Your task to perform on an android device: Empty the shopping cart on amazon.com. Image 0: 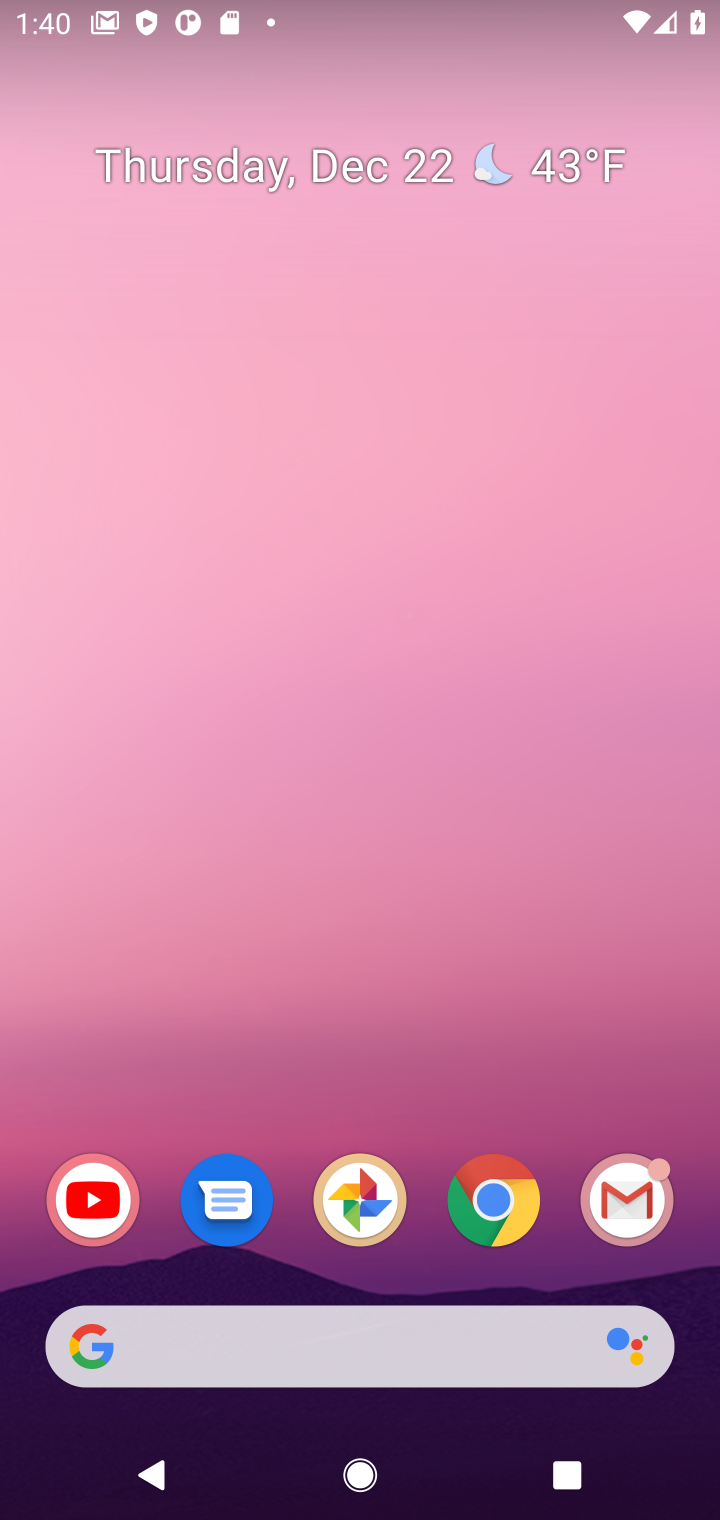
Step 0: click (482, 1208)
Your task to perform on an android device: Empty the shopping cart on amazon.com. Image 1: 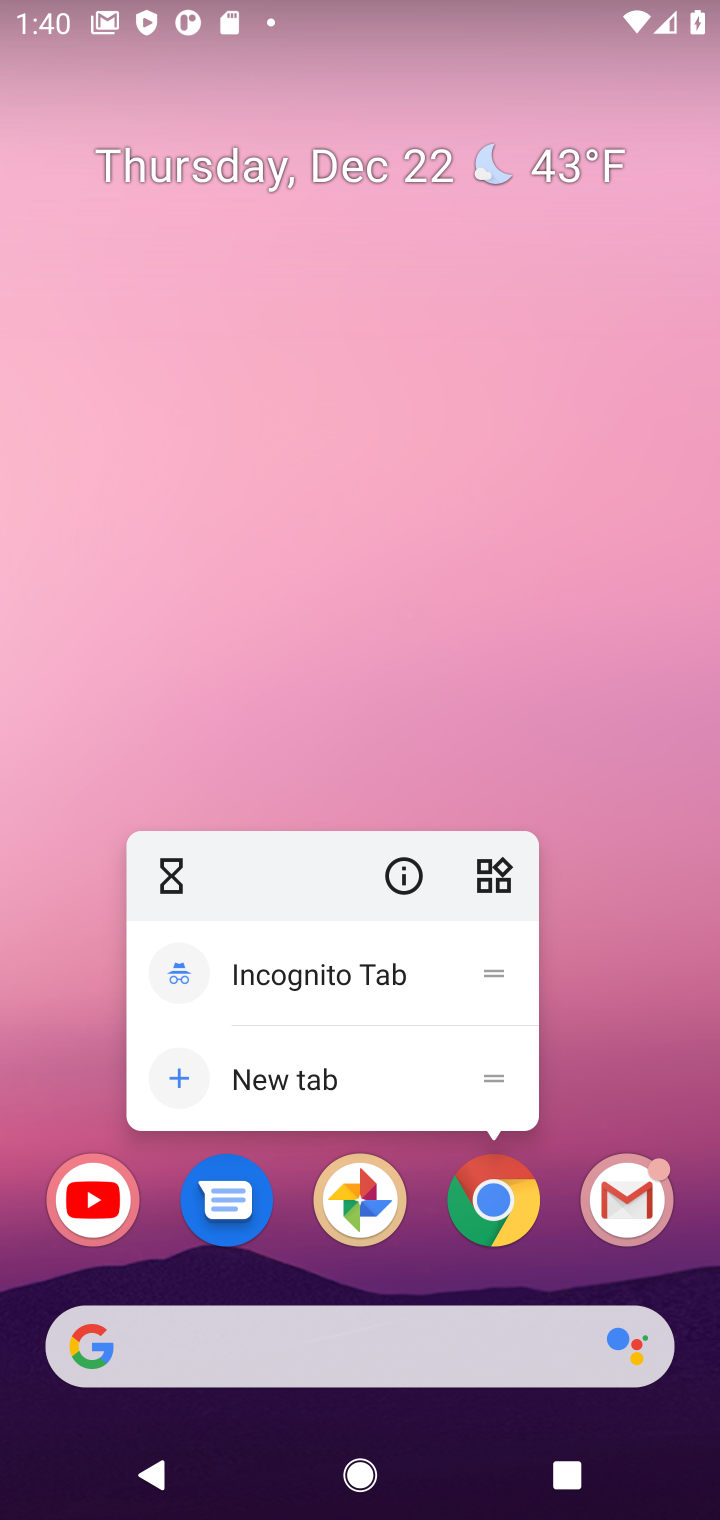
Step 1: click (495, 1208)
Your task to perform on an android device: Empty the shopping cart on amazon.com. Image 2: 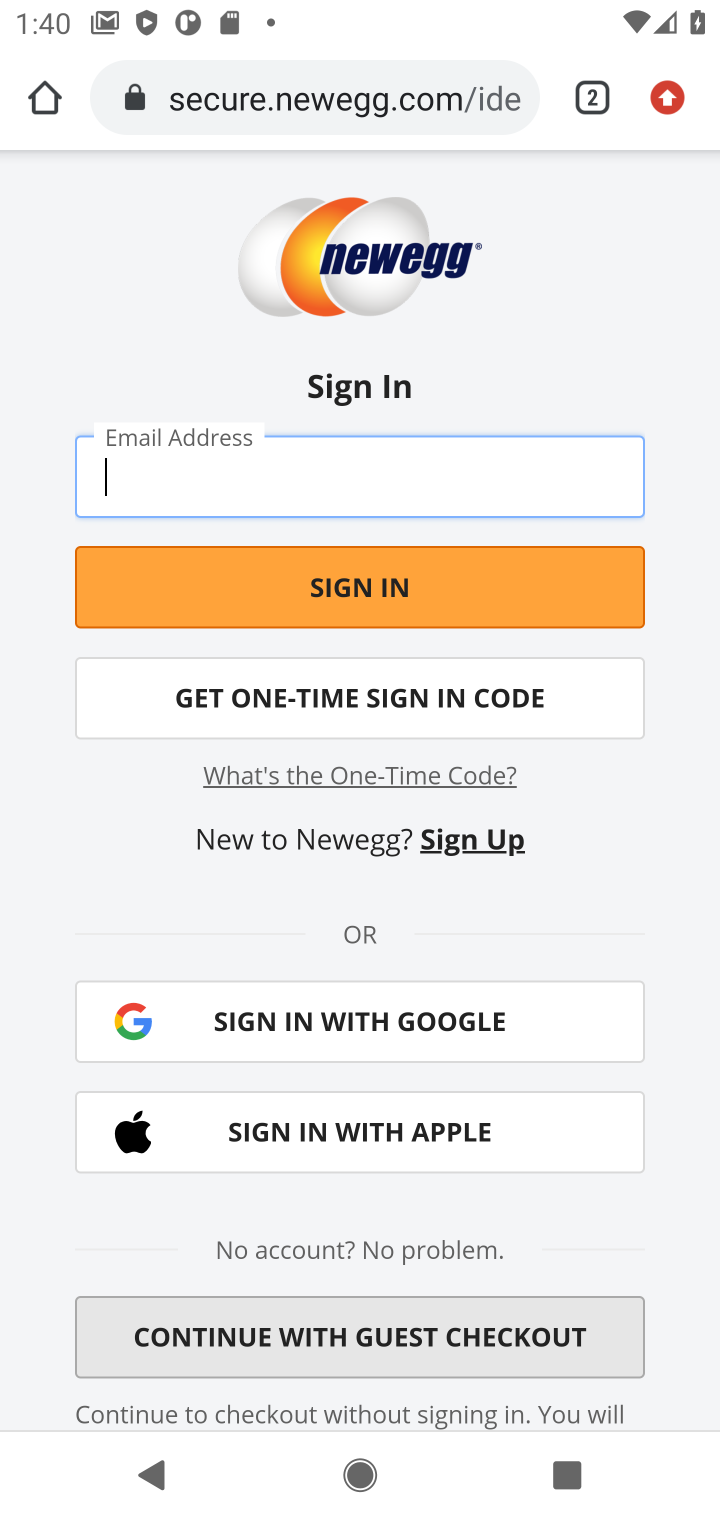
Step 2: click (244, 102)
Your task to perform on an android device: Empty the shopping cart on amazon.com. Image 3: 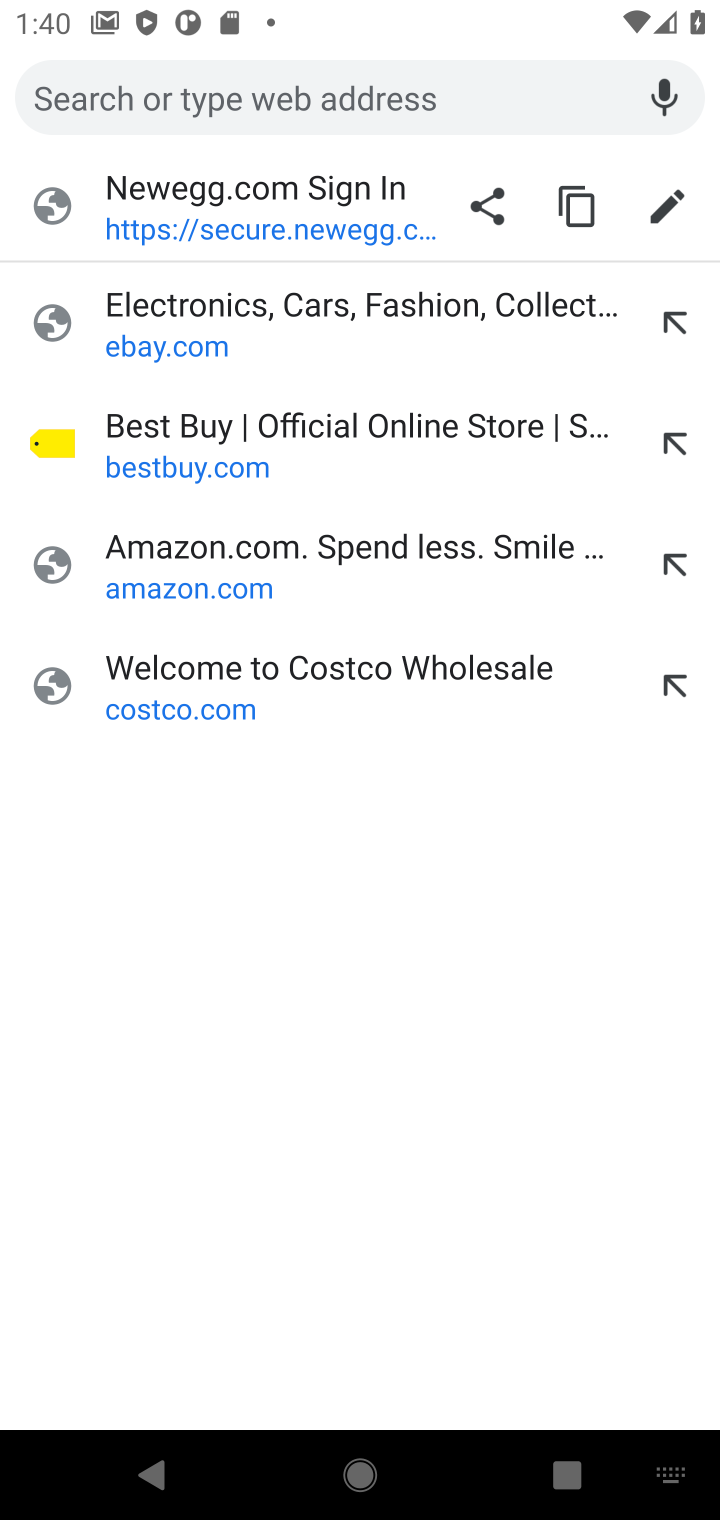
Step 3: click (167, 582)
Your task to perform on an android device: Empty the shopping cart on amazon.com. Image 4: 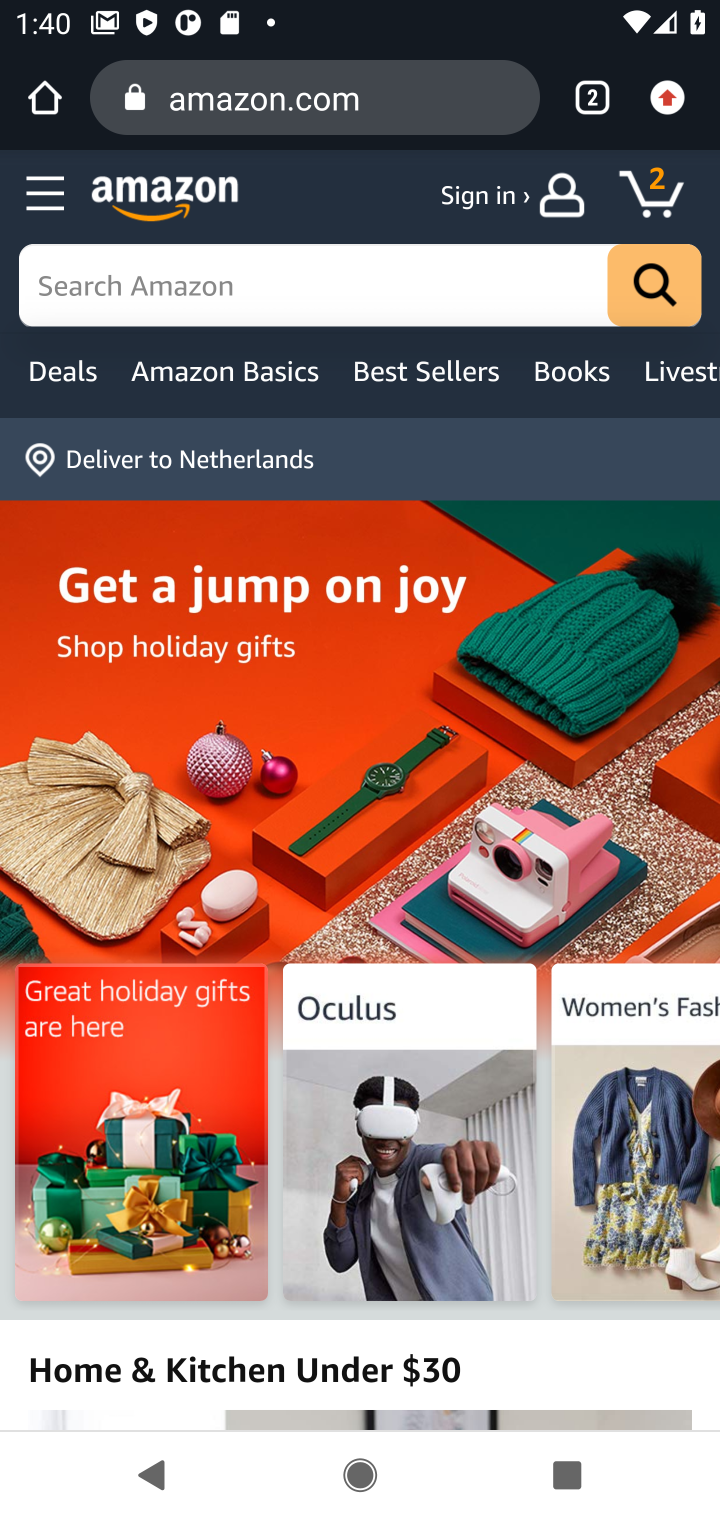
Step 4: click (647, 203)
Your task to perform on an android device: Empty the shopping cart on amazon.com. Image 5: 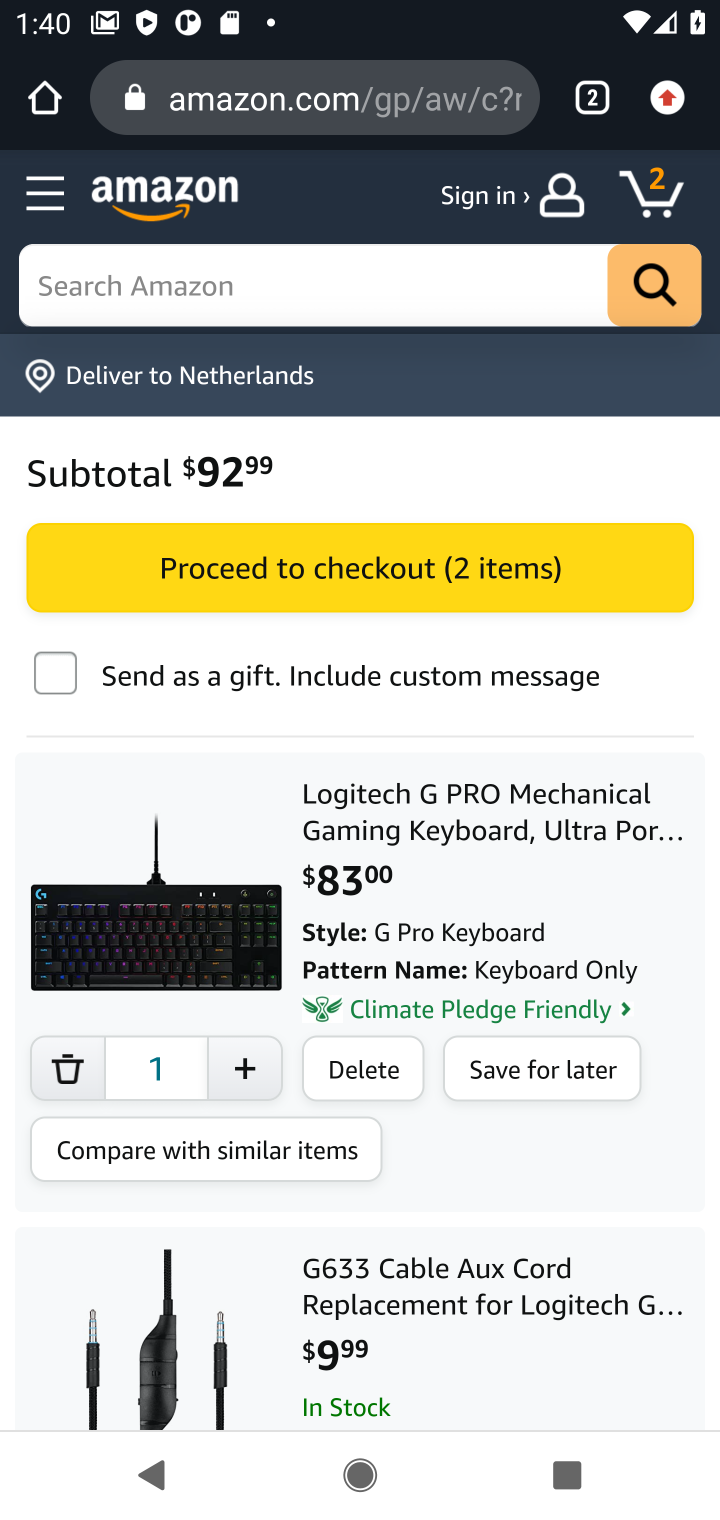
Step 5: drag from (371, 994) to (395, 608)
Your task to perform on an android device: Empty the shopping cart on amazon.com. Image 6: 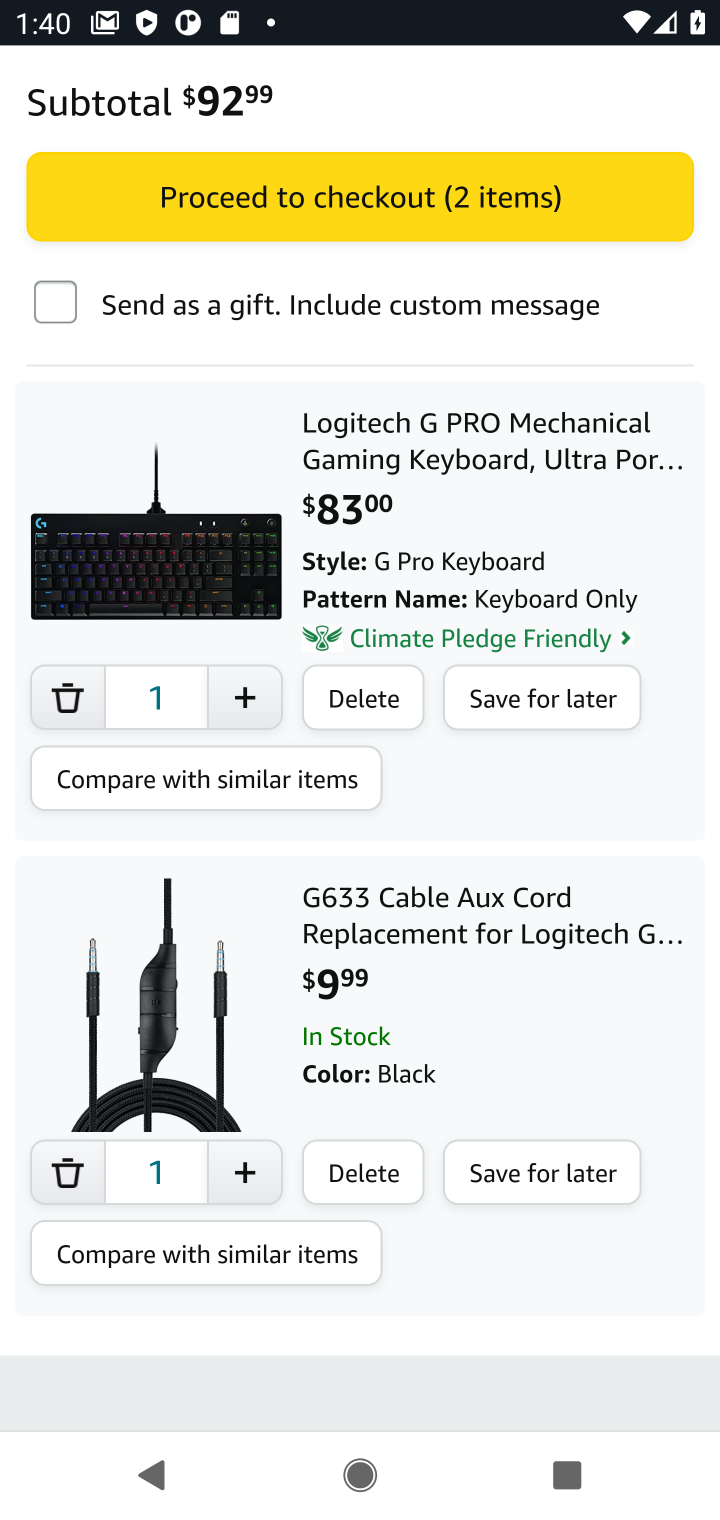
Step 6: click (384, 715)
Your task to perform on an android device: Empty the shopping cart on amazon.com. Image 7: 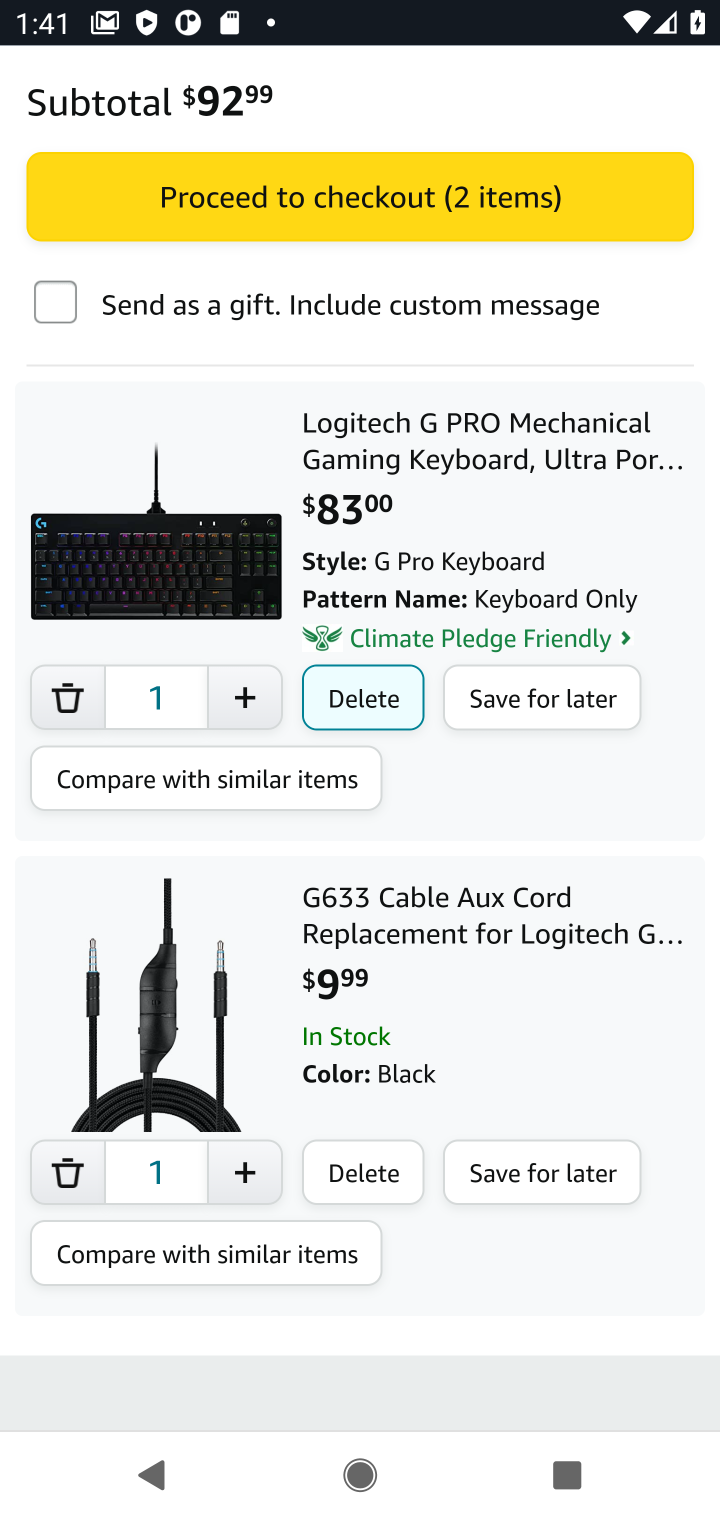
Step 7: click (380, 713)
Your task to perform on an android device: Empty the shopping cart on amazon.com. Image 8: 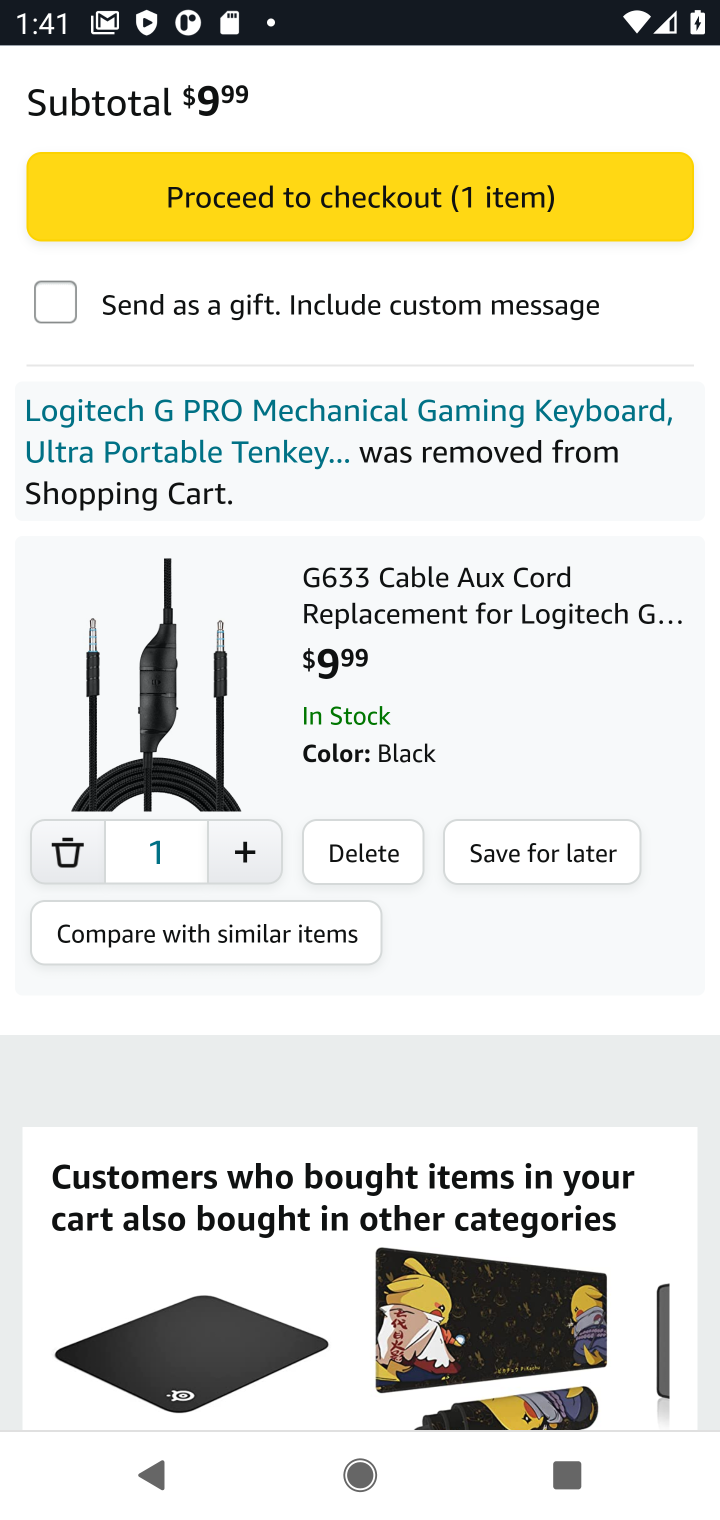
Step 8: click (356, 856)
Your task to perform on an android device: Empty the shopping cart on amazon.com. Image 9: 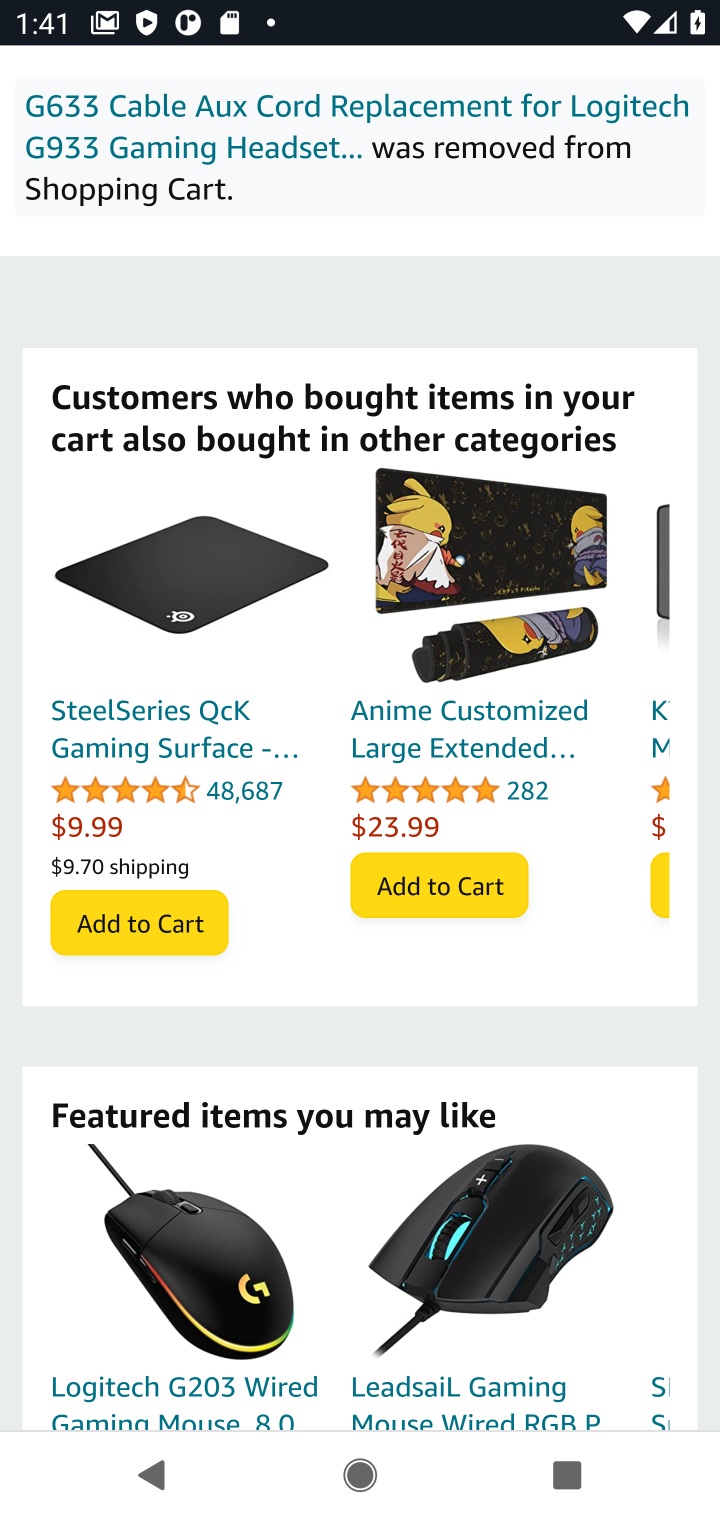
Step 9: task complete